Your task to perform on an android device: Show me productivity apps on the Play Store Image 0: 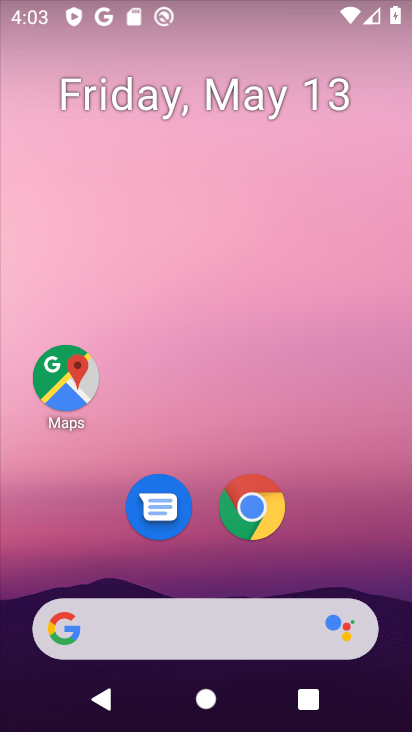
Step 0: drag from (71, 593) to (199, 186)
Your task to perform on an android device: Show me productivity apps on the Play Store Image 1: 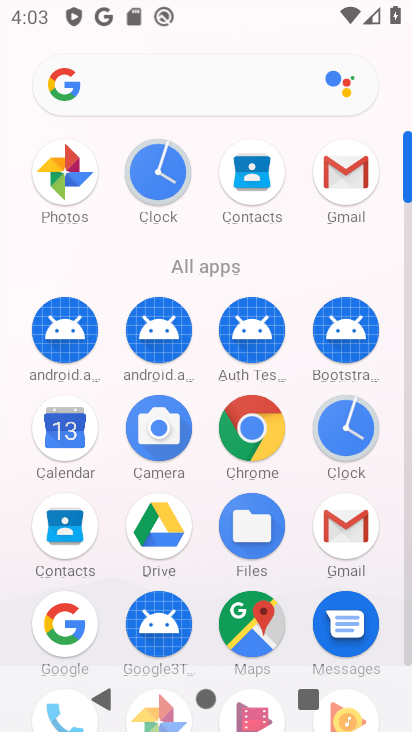
Step 1: drag from (185, 570) to (247, 374)
Your task to perform on an android device: Show me productivity apps on the Play Store Image 2: 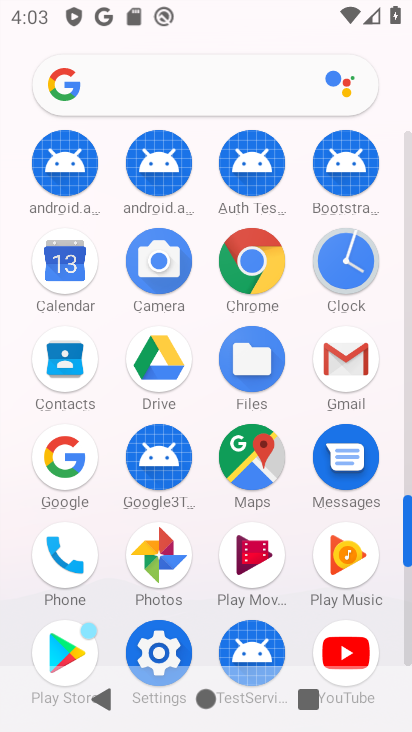
Step 2: drag from (75, 640) to (152, 465)
Your task to perform on an android device: Show me productivity apps on the Play Store Image 3: 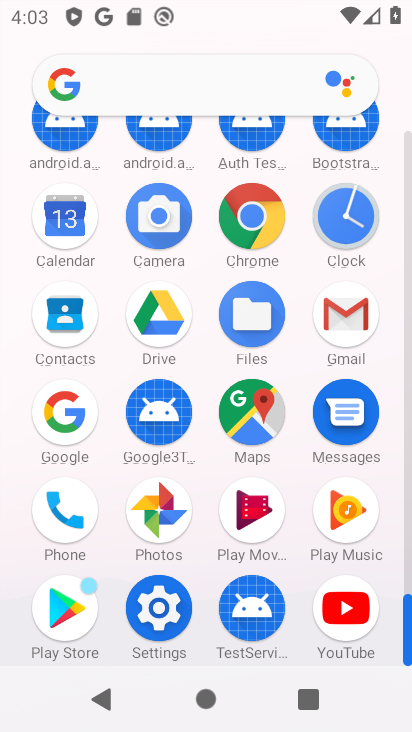
Step 3: click (84, 603)
Your task to perform on an android device: Show me productivity apps on the Play Store Image 4: 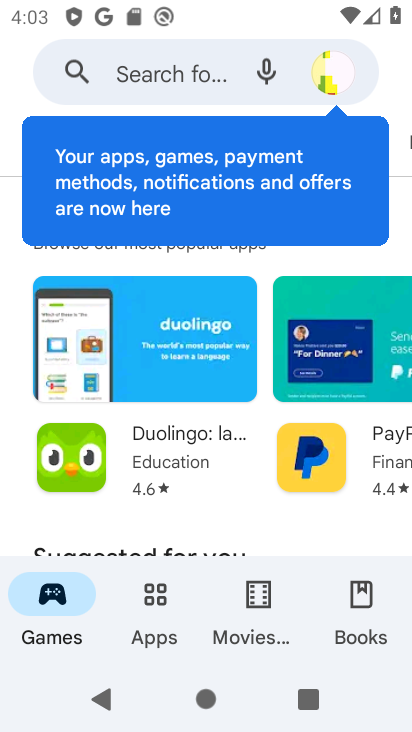
Step 4: click (198, 605)
Your task to perform on an android device: Show me productivity apps on the Play Store Image 5: 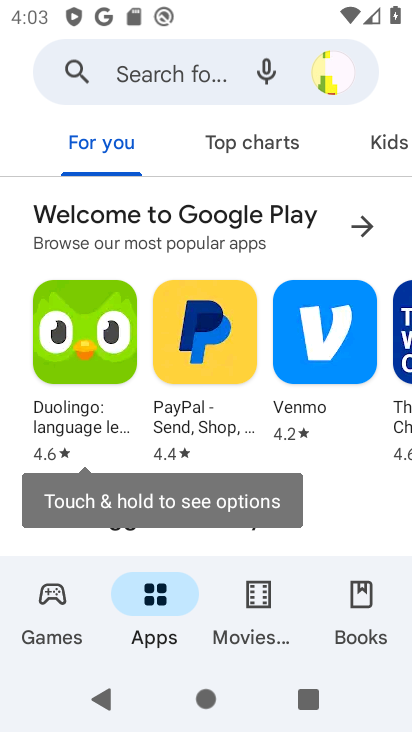
Step 5: drag from (322, 124) to (24, 131)
Your task to perform on an android device: Show me productivity apps on the Play Store Image 6: 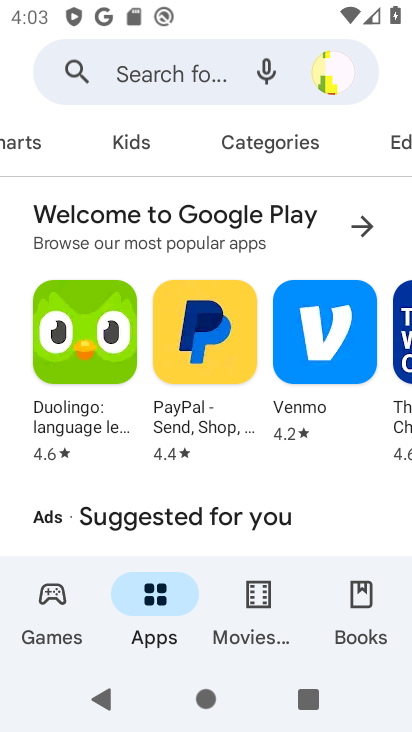
Step 6: click (267, 150)
Your task to perform on an android device: Show me productivity apps on the Play Store Image 7: 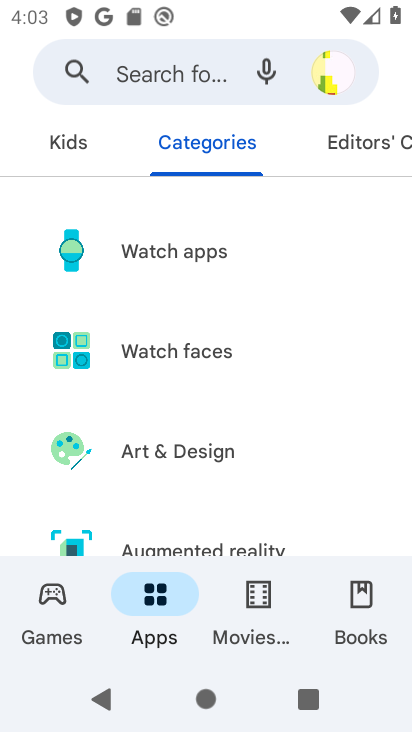
Step 7: drag from (221, 513) to (311, 188)
Your task to perform on an android device: Show me productivity apps on the Play Store Image 8: 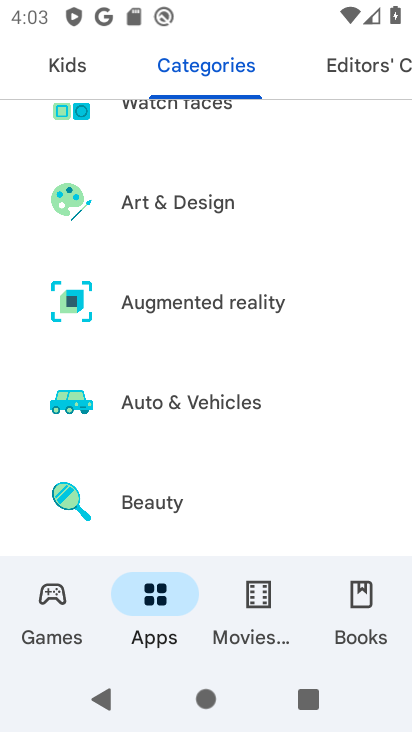
Step 8: drag from (233, 495) to (326, 200)
Your task to perform on an android device: Show me productivity apps on the Play Store Image 9: 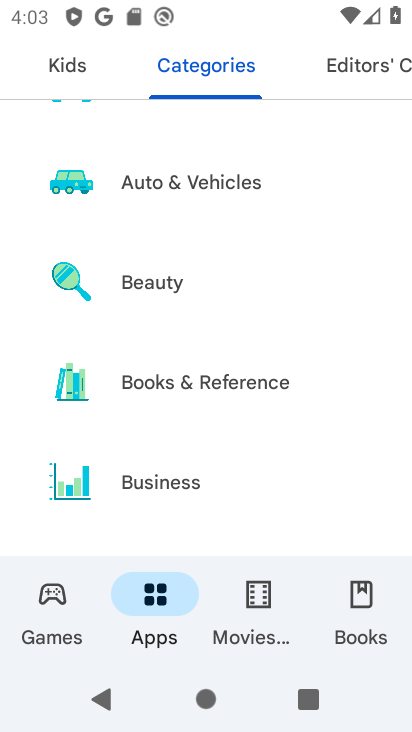
Step 9: drag from (227, 521) to (313, 134)
Your task to perform on an android device: Show me productivity apps on the Play Store Image 10: 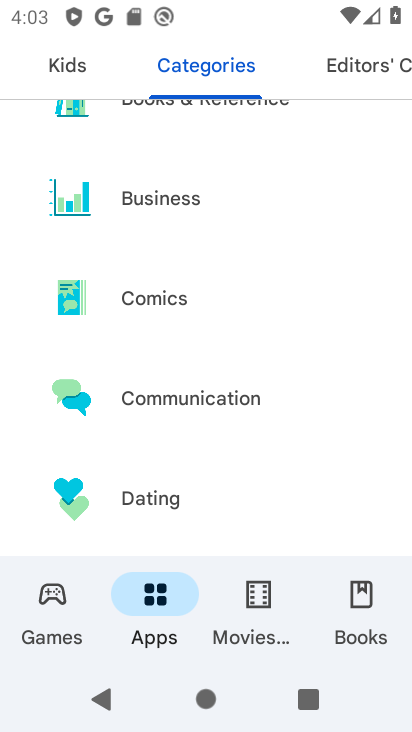
Step 10: drag from (221, 463) to (301, 170)
Your task to perform on an android device: Show me productivity apps on the Play Store Image 11: 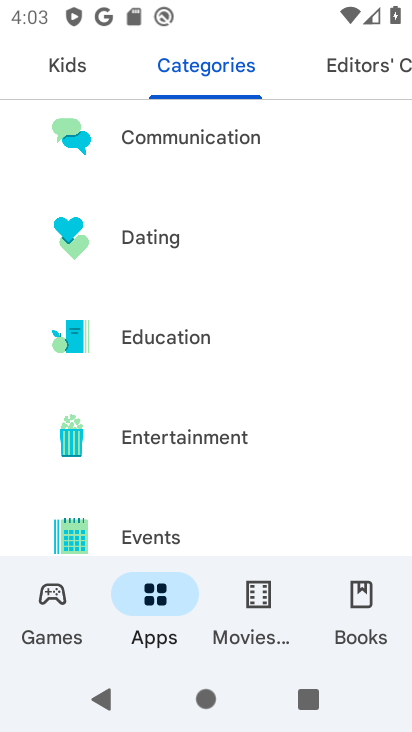
Step 11: drag from (201, 493) to (303, 191)
Your task to perform on an android device: Show me productivity apps on the Play Store Image 12: 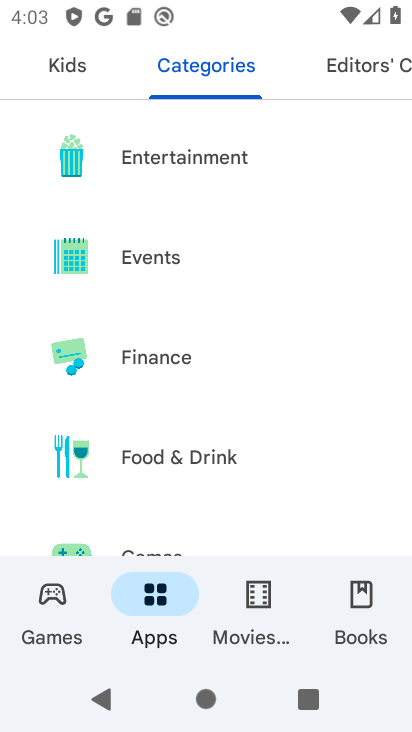
Step 12: drag from (224, 485) to (297, 211)
Your task to perform on an android device: Show me productivity apps on the Play Store Image 13: 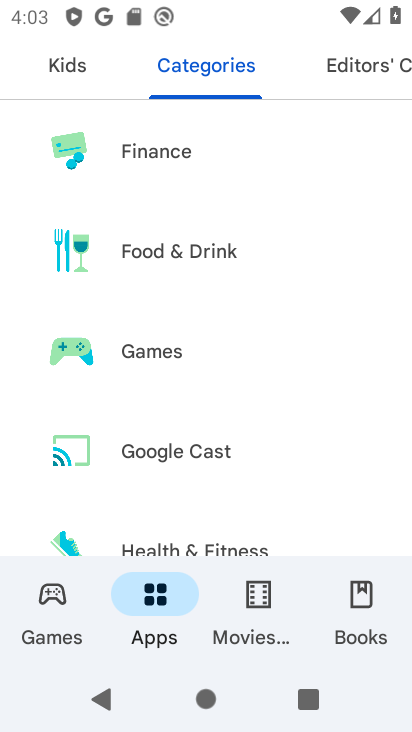
Step 13: drag from (229, 466) to (311, 210)
Your task to perform on an android device: Show me productivity apps on the Play Store Image 14: 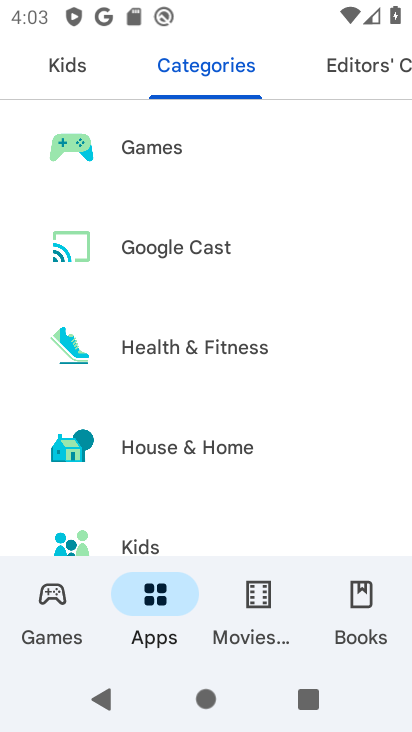
Step 14: drag from (212, 447) to (294, 119)
Your task to perform on an android device: Show me productivity apps on the Play Store Image 15: 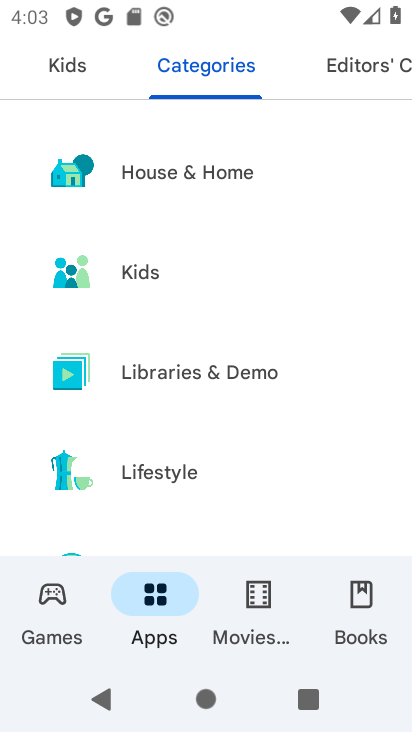
Step 15: drag from (226, 429) to (296, 166)
Your task to perform on an android device: Show me productivity apps on the Play Store Image 16: 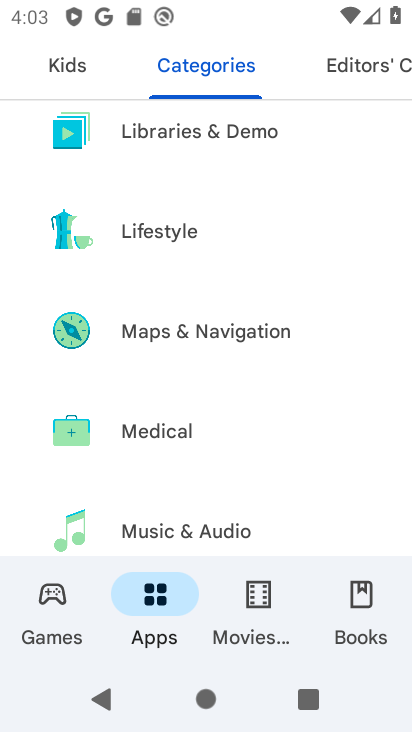
Step 16: drag from (238, 467) to (310, 167)
Your task to perform on an android device: Show me productivity apps on the Play Store Image 17: 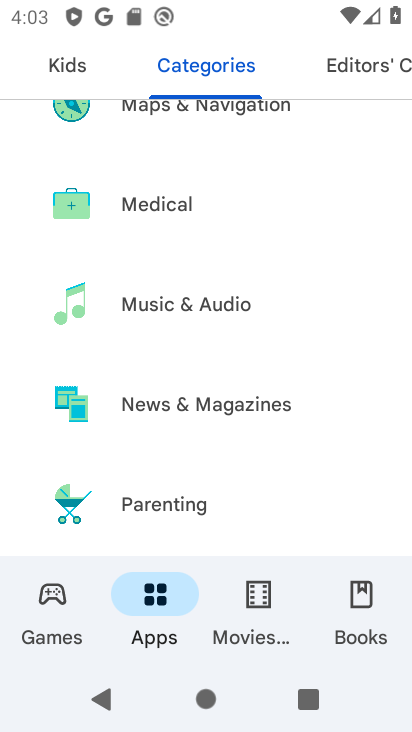
Step 17: drag from (229, 487) to (292, 220)
Your task to perform on an android device: Show me productivity apps on the Play Store Image 18: 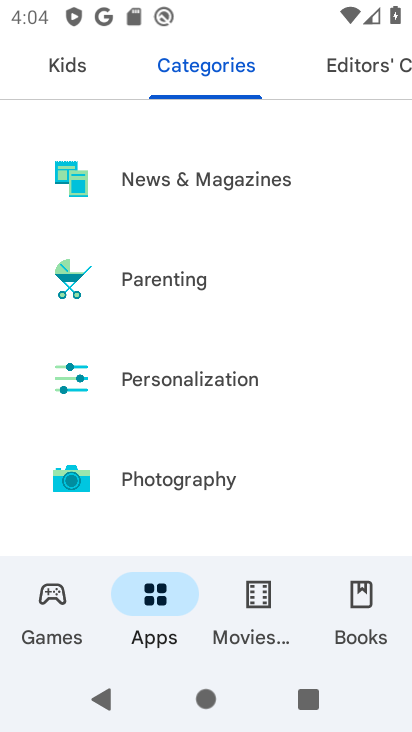
Step 18: drag from (88, 543) to (220, 168)
Your task to perform on an android device: Show me productivity apps on the Play Store Image 19: 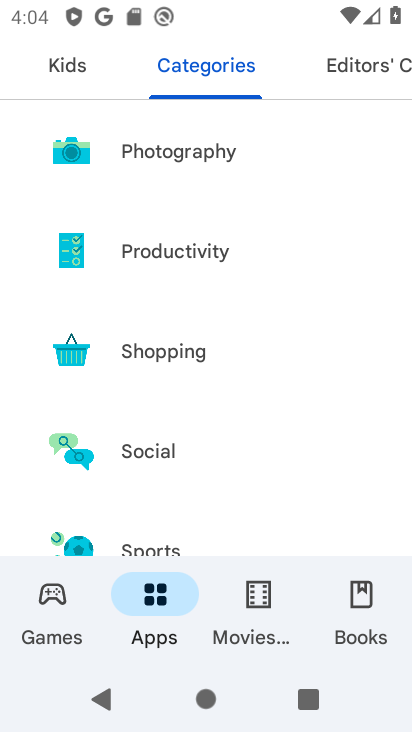
Step 19: click (204, 238)
Your task to perform on an android device: Show me productivity apps on the Play Store Image 20: 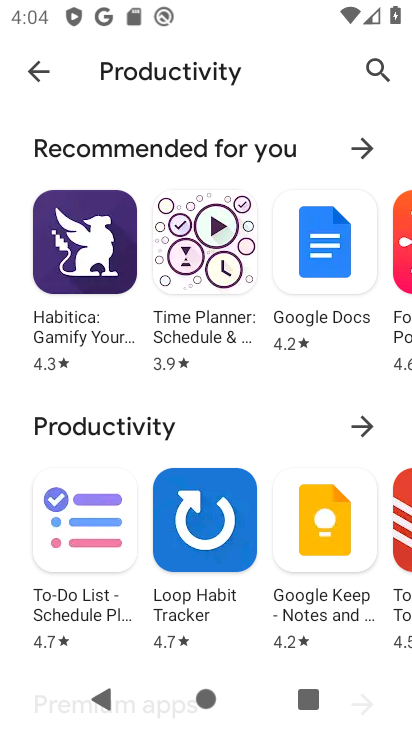
Step 20: task complete